Your task to perform on an android device: Set an alarmfor 5pm Image 0: 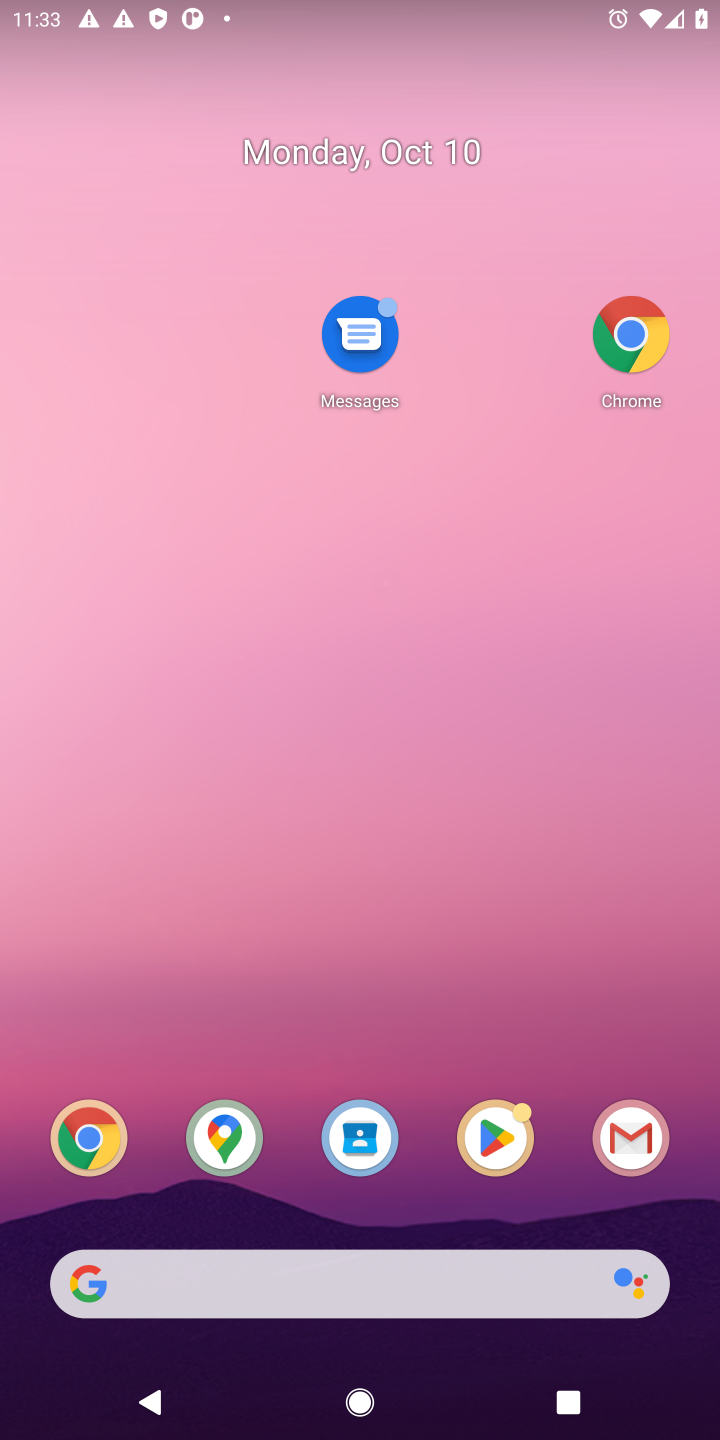
Step 0: drag from (516, 928) to (533, 325)
Your task to perform on an android device: Set an alarmfor 5pm Image 1: 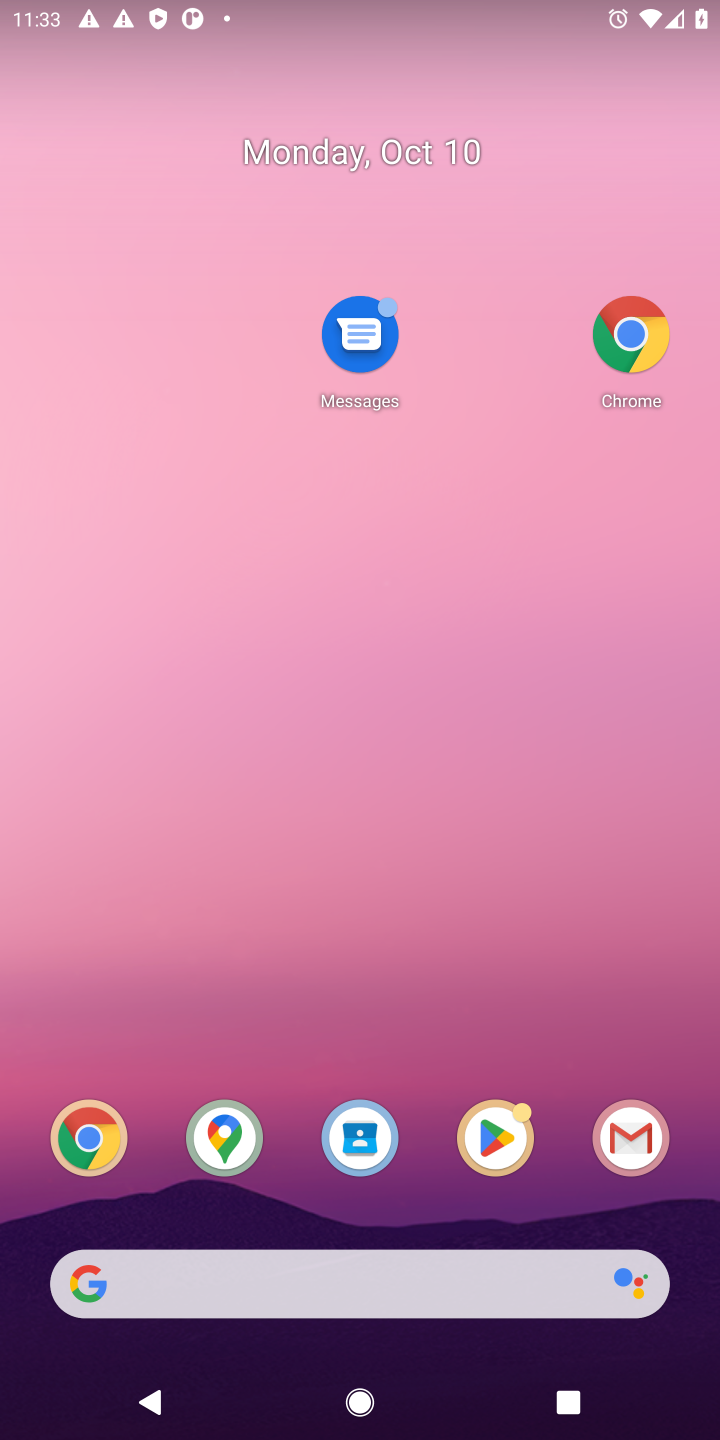
Step 1: drag from (424, 1261) to (390, 227)
Your task to perform on an android device: Set an alarmfor 5pm Image 2: 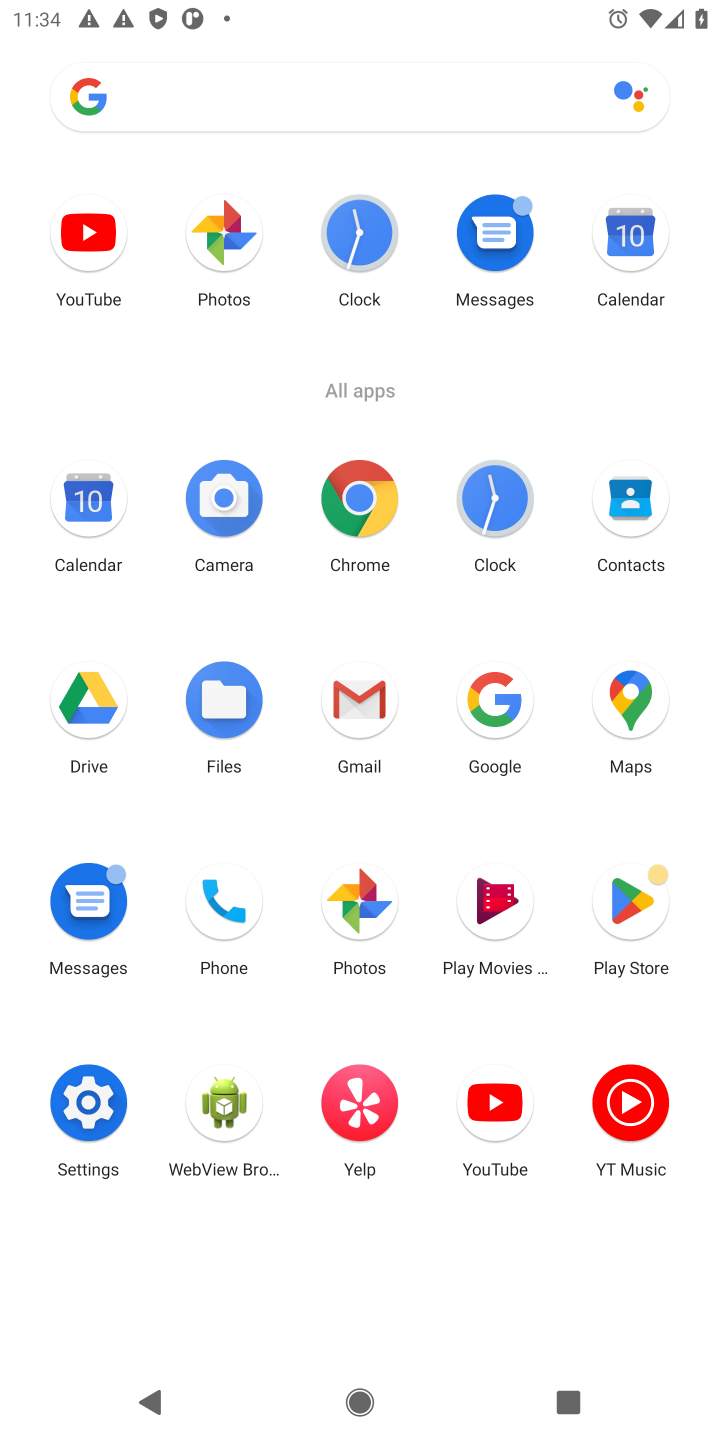
Step 2: click (491, 523)
Your task to perform on an android device: Set an alarmfor 5pm Image 3: 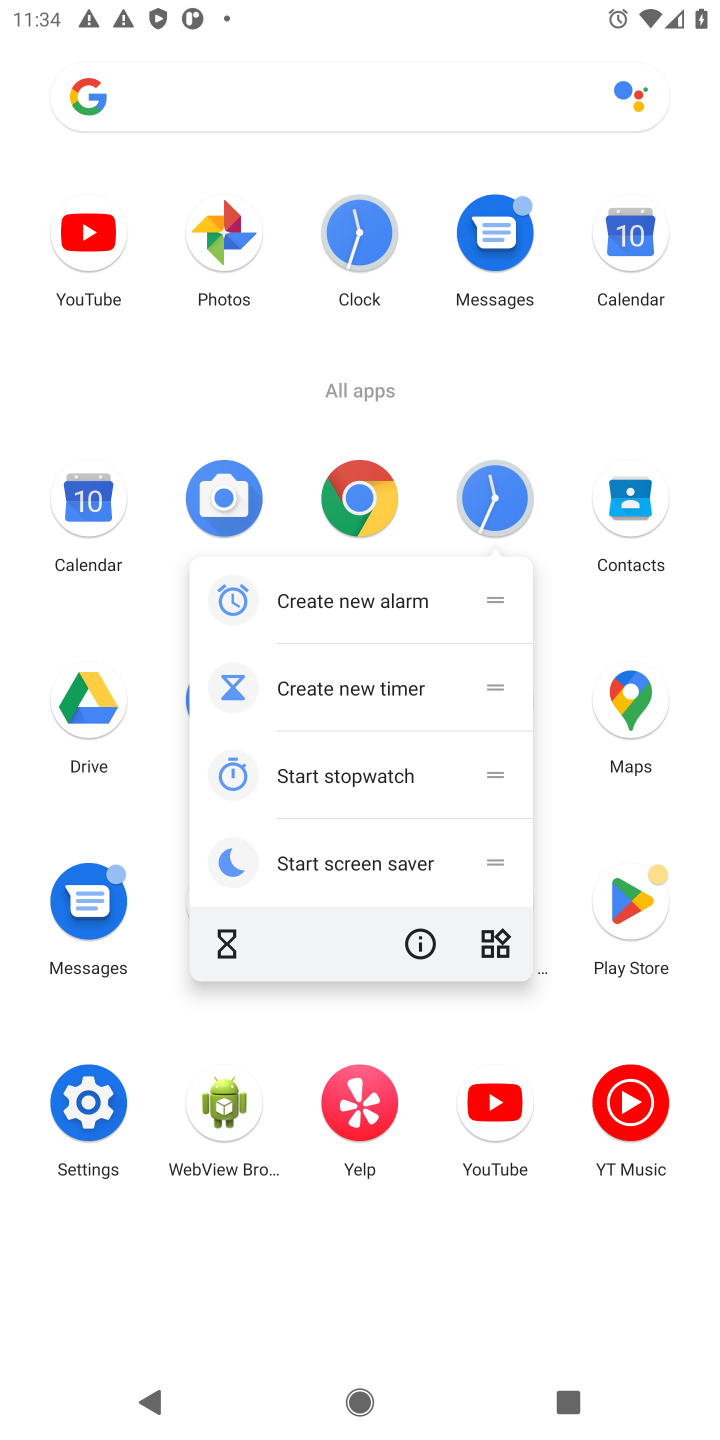
Step 3: click (496, 500)
Your task to perform on an android device: Set an alarmfor 5pm Image 4: 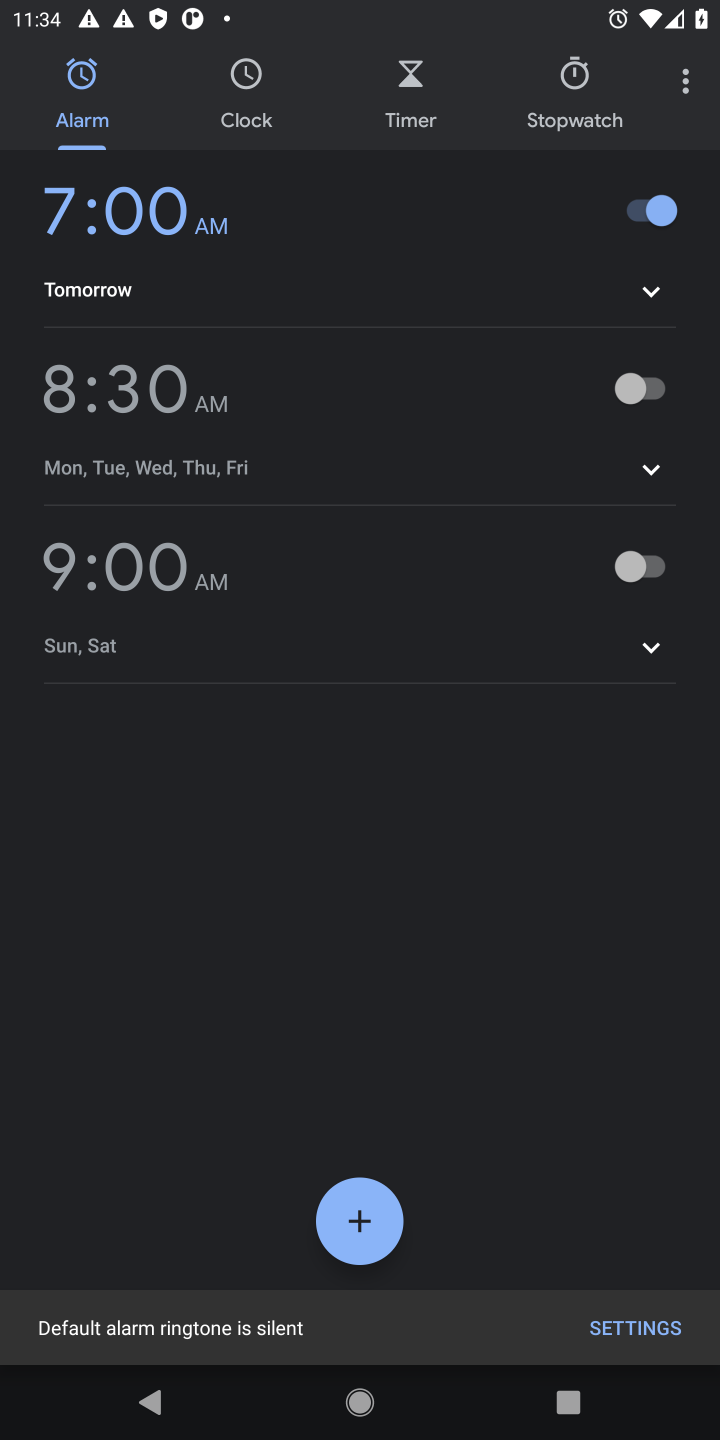
Step 4: click (390, 1222)
Your task to perform on an android device: Set an alarmfor 5pm Image 5: 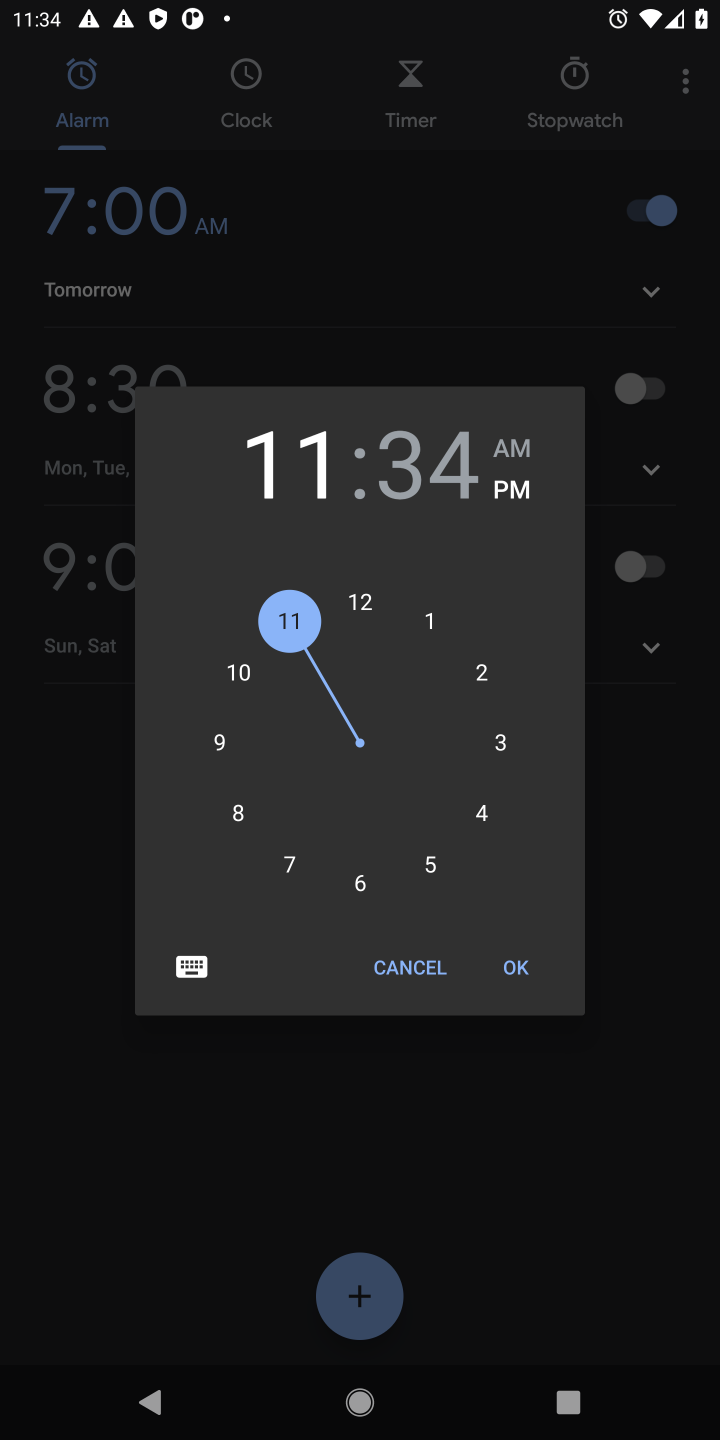
Step 5: click (436, 875)
Your task to perform on an android device: Set an alarmfor 5pm Image 6: 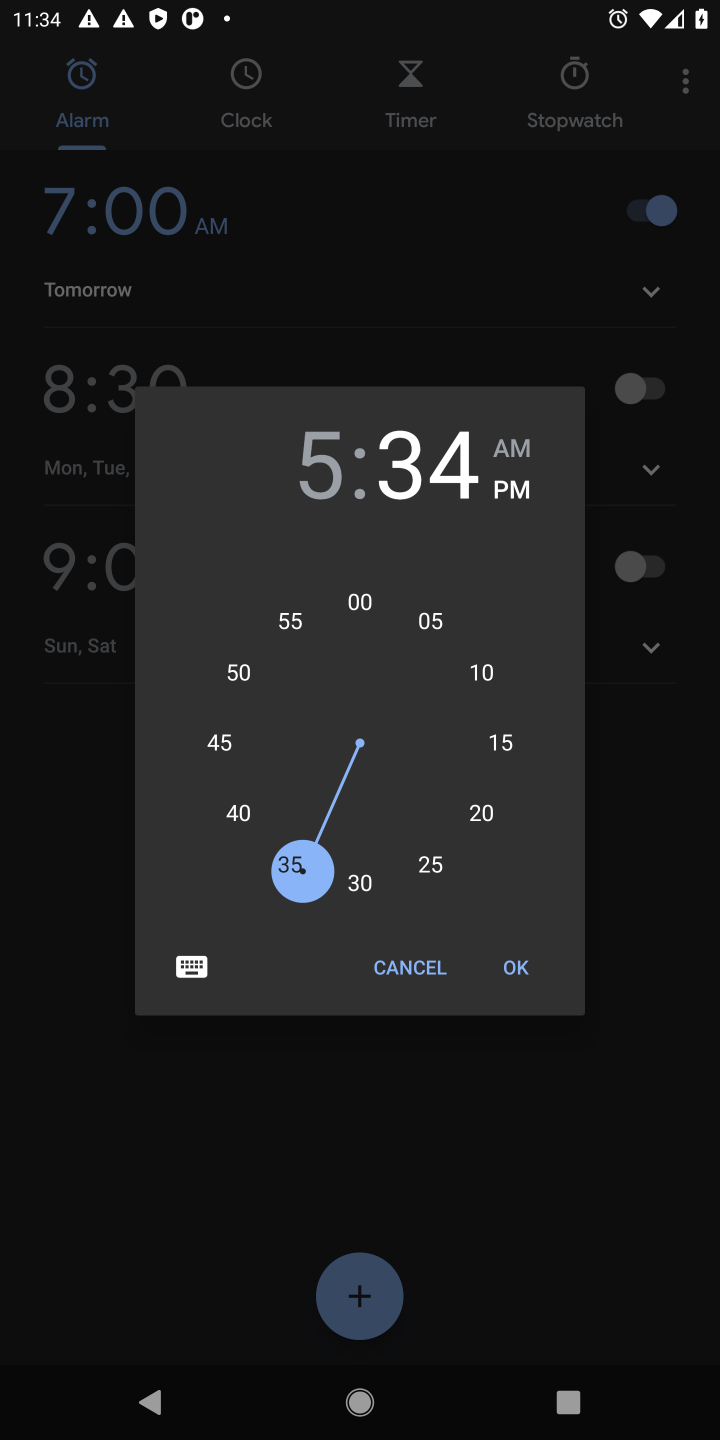
Step 6: click (357, 611)
Your task to perform on an android device: Set an alarmfor 5pm Image 7: 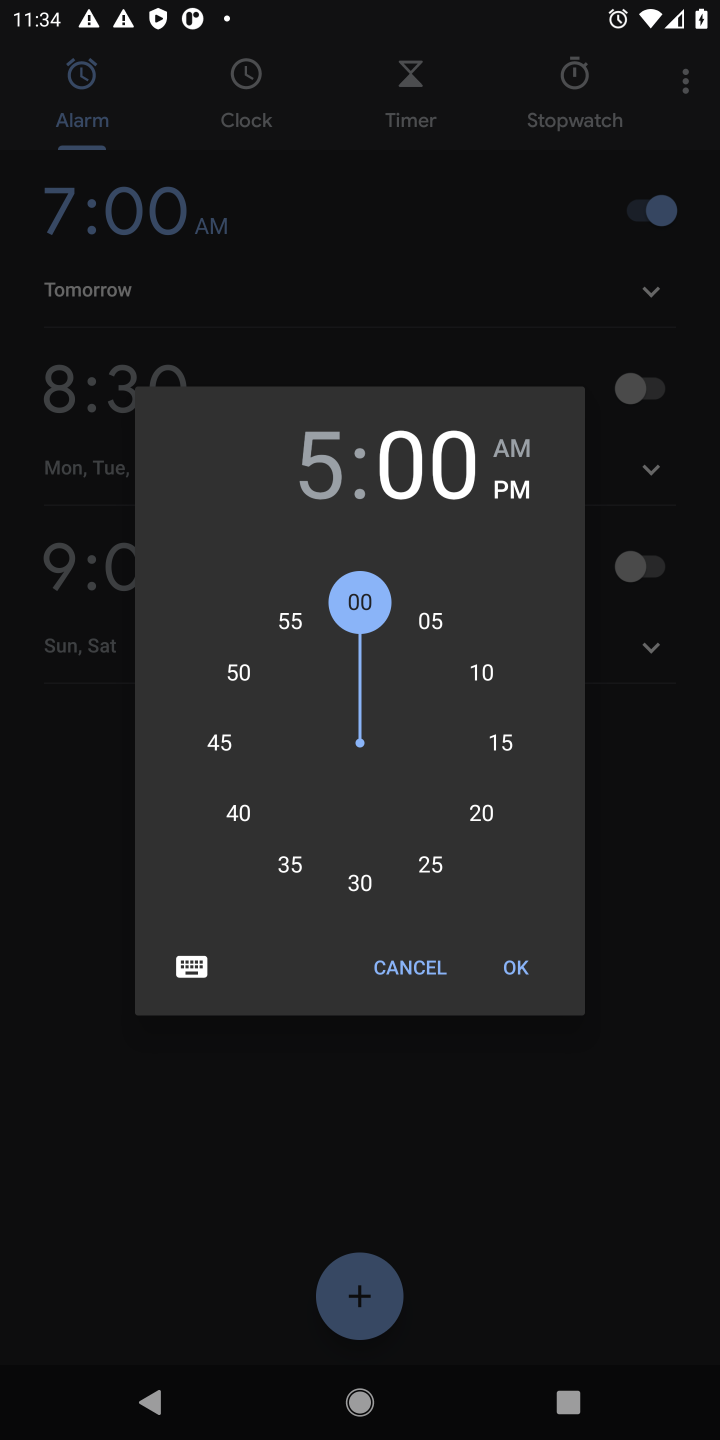
Step 7: click (504, 487)
Your task to perform on an android device: Set an alarmfor 5pm Image 8: 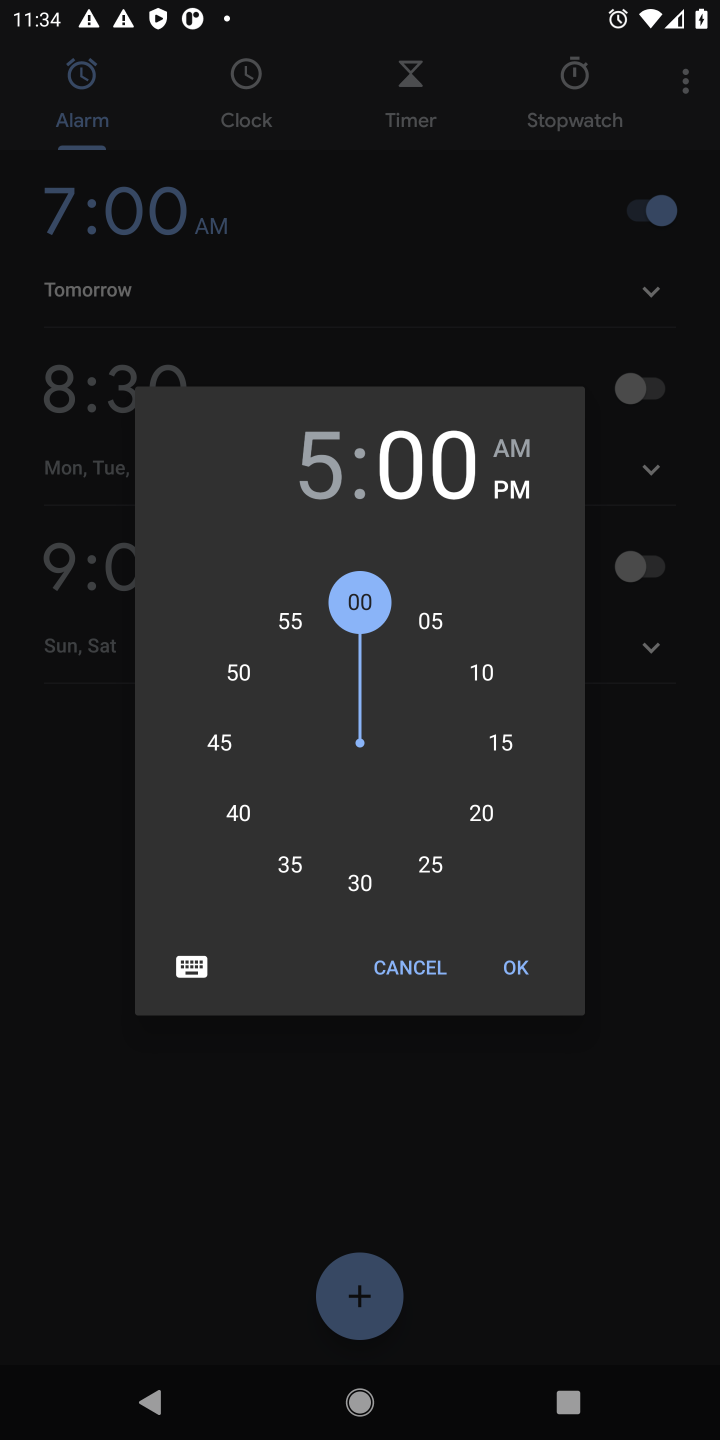
Step 8: click (506, 489)
Your task to perform on an android device: Set an alarmfor 5pm Image 9: 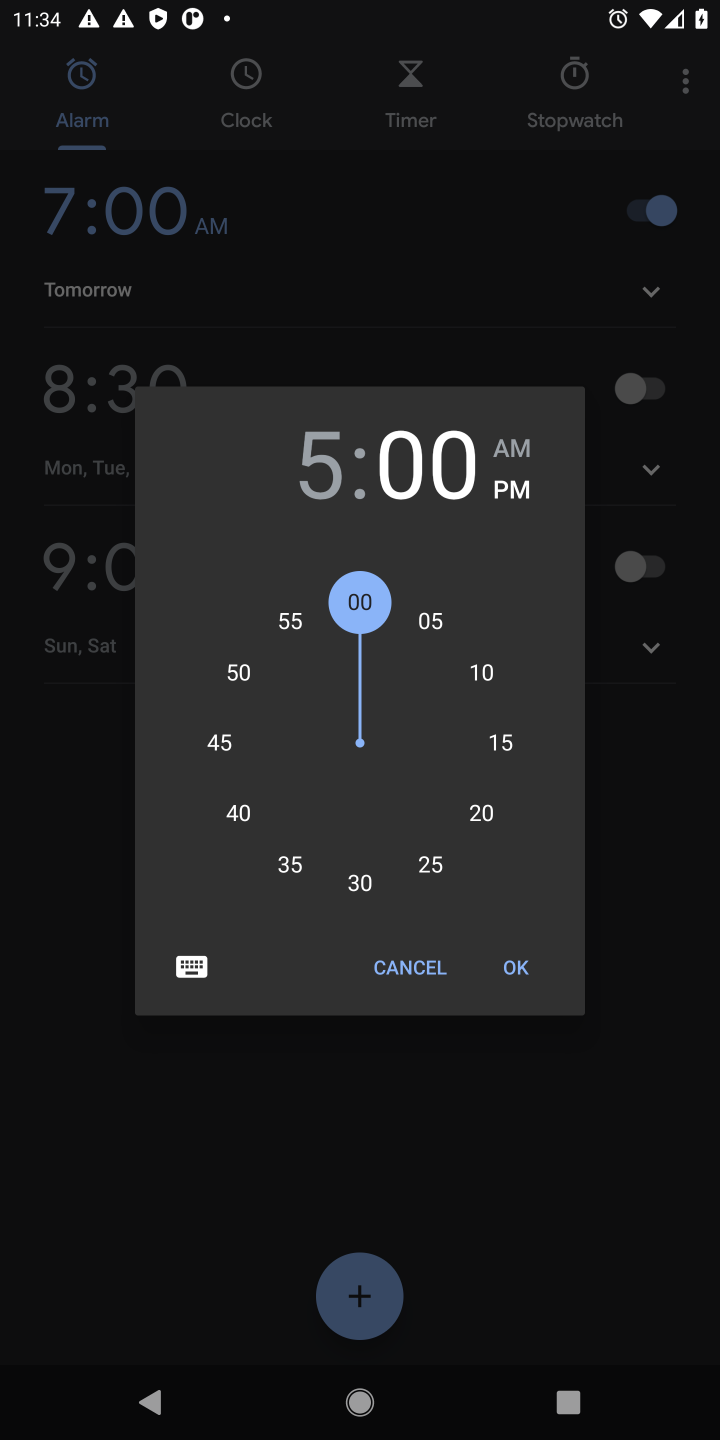
Step 9: click (520, 972)
Your task to perform on an android device: Set an alarmfor 5pm Image 10: 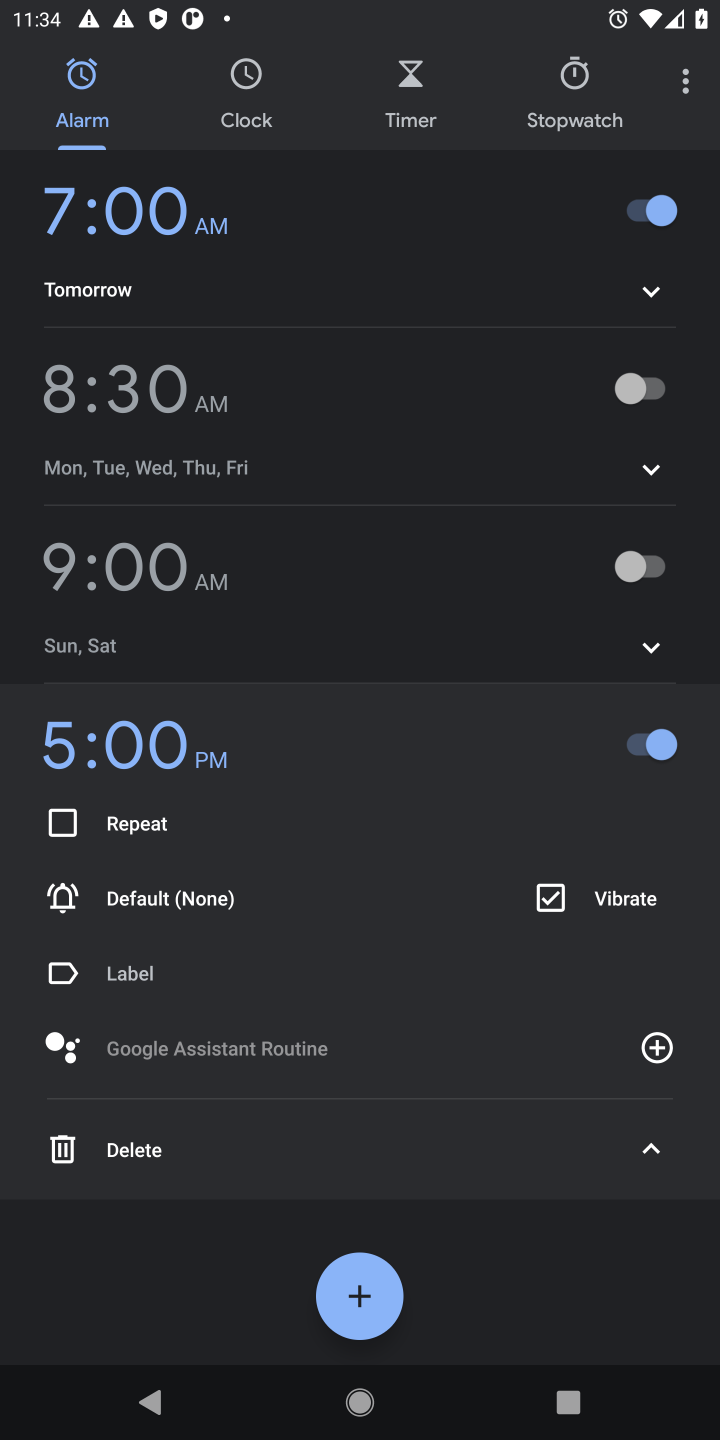
Step 10: drag from (494, 1019) to (501, 804)
Your task to perform on an android device: Set an alarmfor 5pm Image 11: 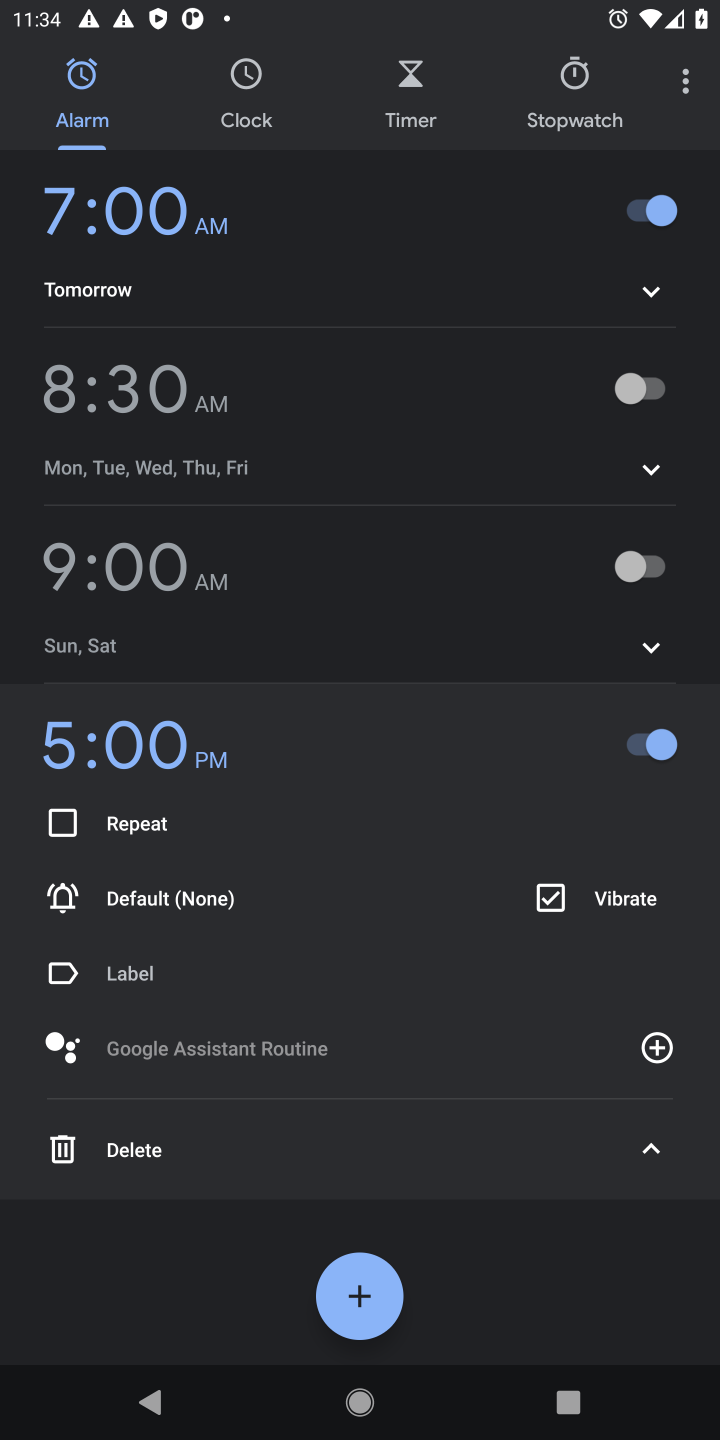
Step 11: click (656, 1166)
Your task to perform on an android device: Set an alarmfor 5pm Image 12: 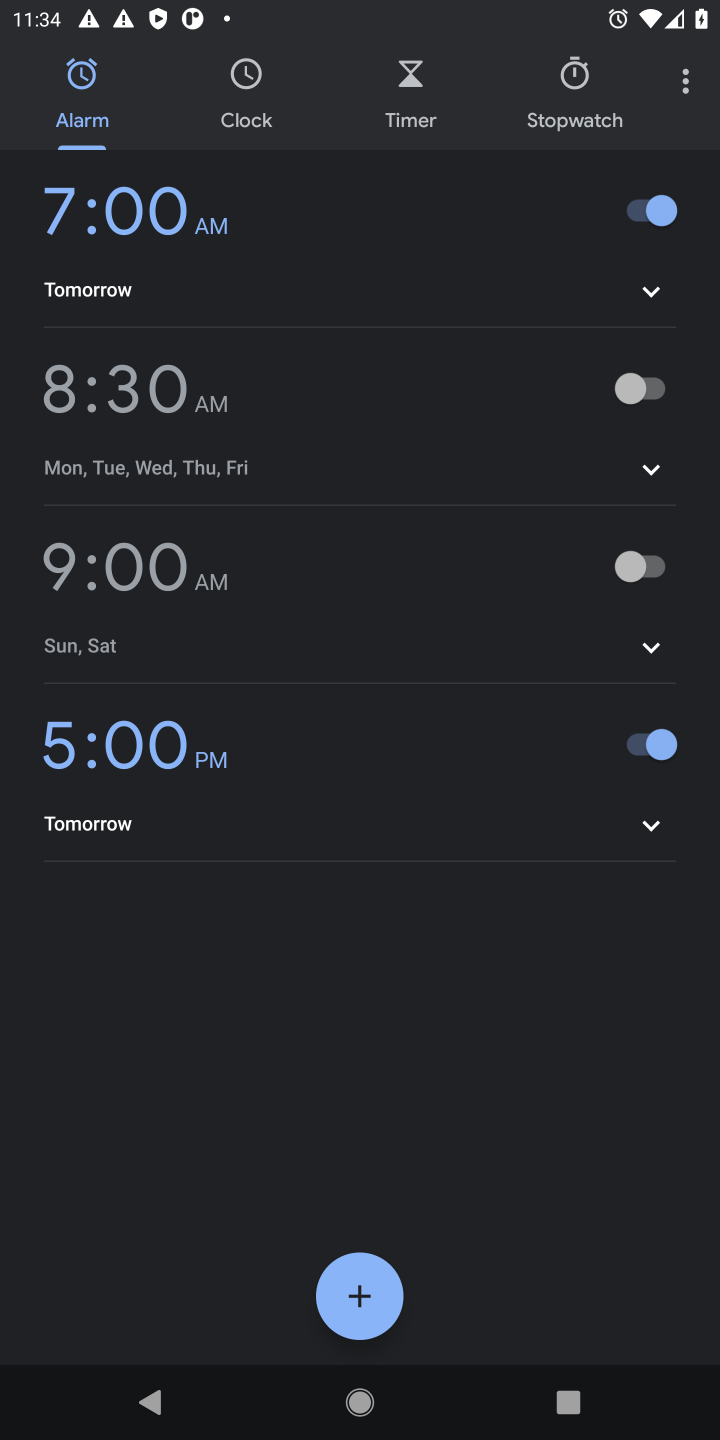
Step 12: task complete